Your task to perform on an android device: Open Youtube and go to "Your channel" Image 0: 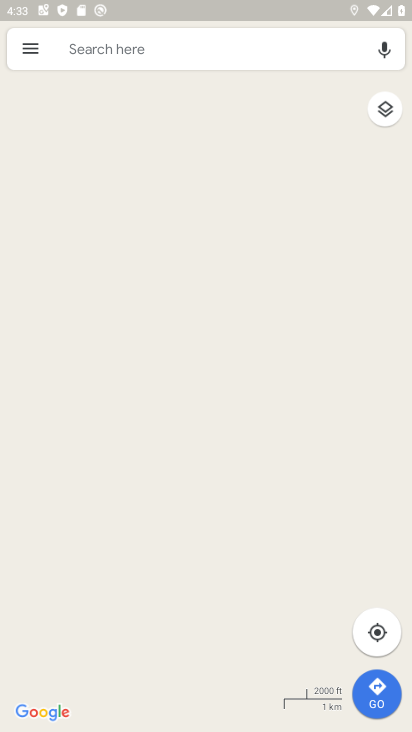
Step 0: press back button
Your task to perform on an android device: Open Youtube and go to "Your channel" Image 1: 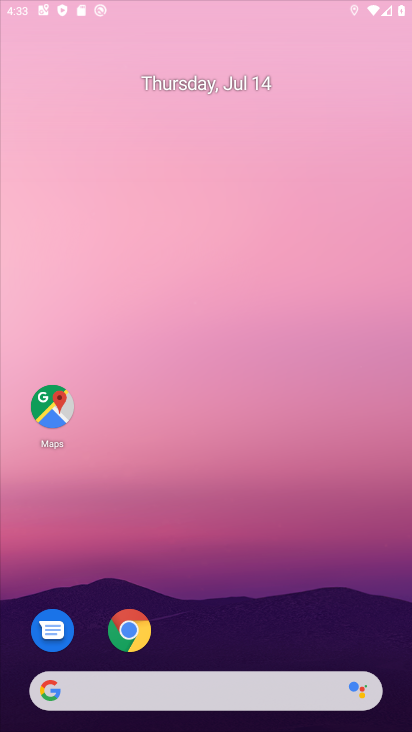
Step 1: drag from (253, 637) to (358, 10)
Your task to perform on an android device: Open Youtube and go to "Your channel" Image 2: 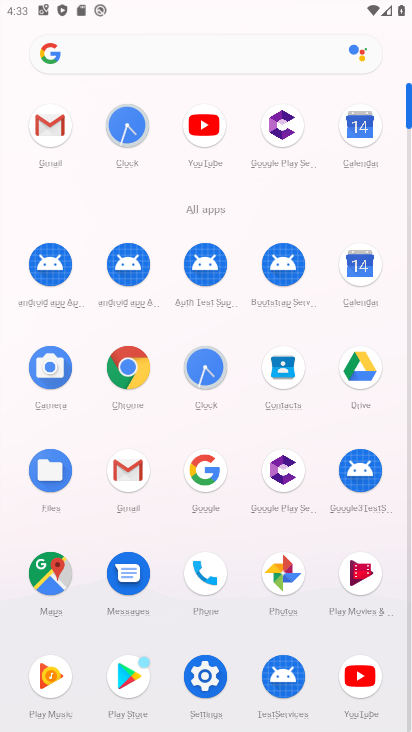
Step 2: click (365, 662)
Your task to perform on an android device: Open Youtube and go to "Your channel" Image 3: 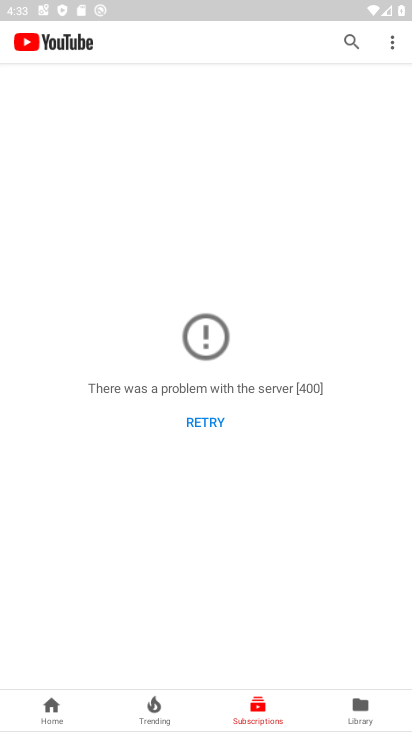
Step 3: click (368, 701)
Your task to perform on an android device: Open Youtube and go to "Your channel" Image 4: 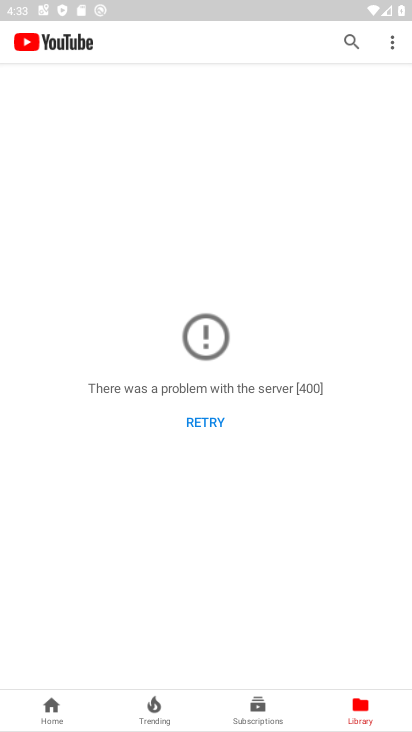
Step 4: task complete